Your task to perform on an android device: Search for vegetarian restaurants on Maps Image 0: 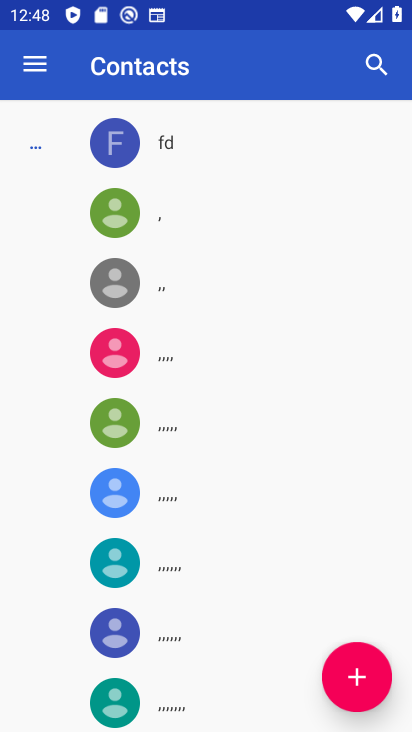
Step 0: press home button
Your task to perform on an android device: Search for vegetarian restaurants on Maps Image 1: 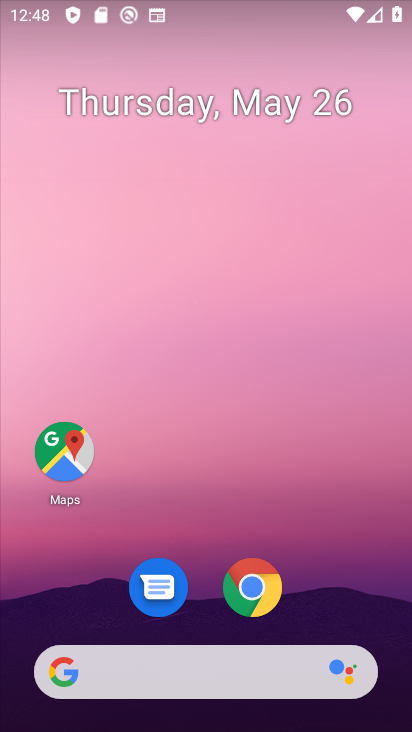
Step 1: drag from (387, 630) to (376, 264)
Your task to perform on an android device: Search for vegetarian restaurants on Maps Image 2: 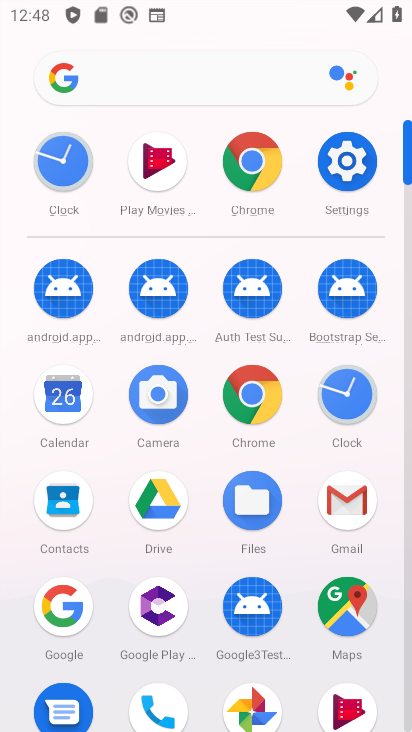
Step 2: drag from (401, 643) to (376, 388)
Your task to perform on an android device: Search for vegetarian restaurants on Maps Image 3: 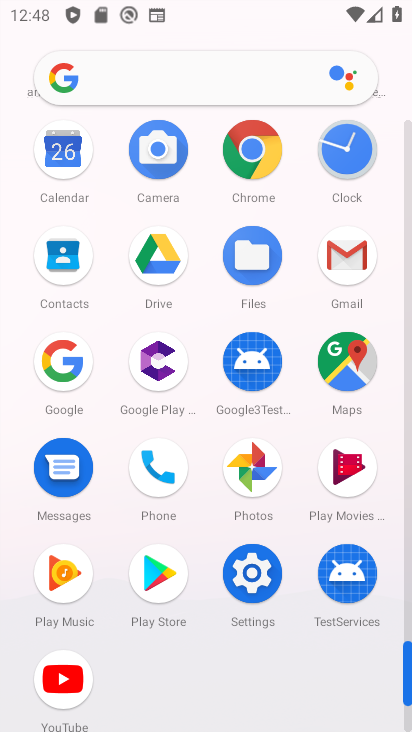
Step 3: click (354, 371)
Your task to perform on an android device: Search for vegetarian restaurants on Maps Image 4: 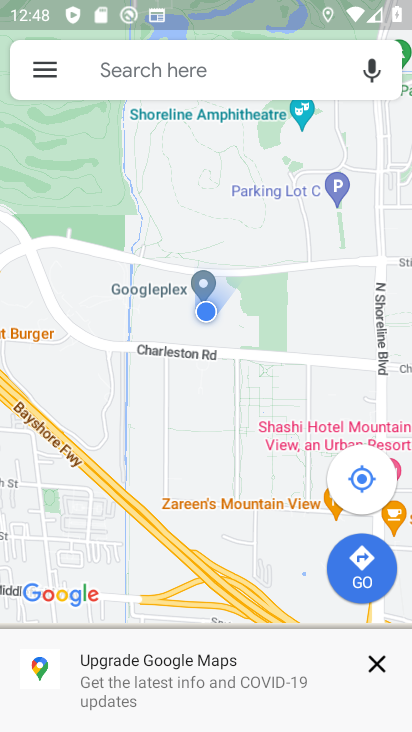
Step 4: click (233, 65)
Your task to perform on an android device: Search for vegetarian restaurants on Maps Image 5: 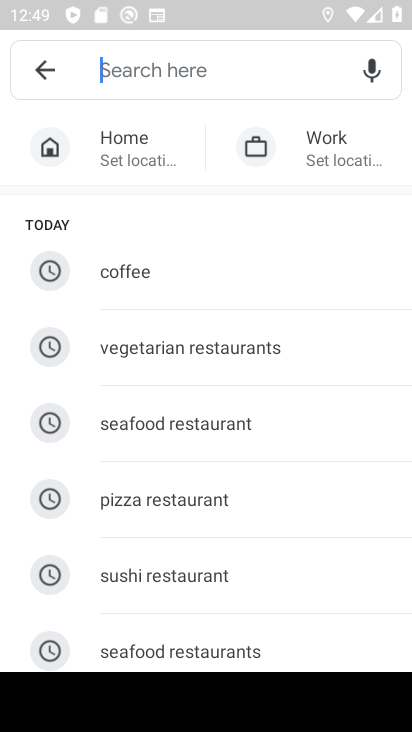
Step 5: type "vegetraub"
Your task to perform on an android device: Search for vegetarian restaurants on Maps Image 6: 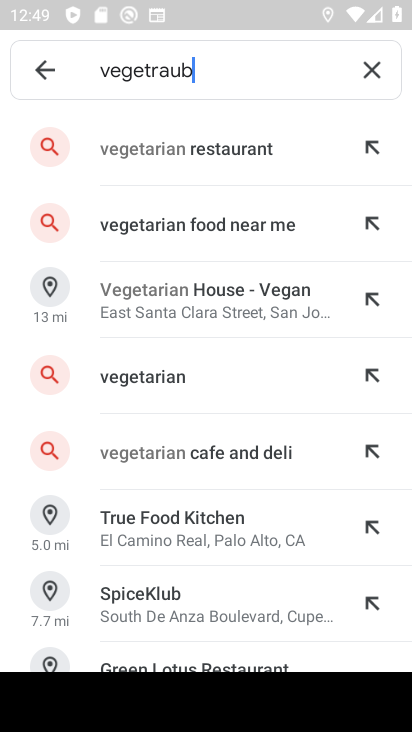
Step 6: click (212, 164)
Your task to perform on an android device: Search for vegetarian restaurants on Maps Image 7: 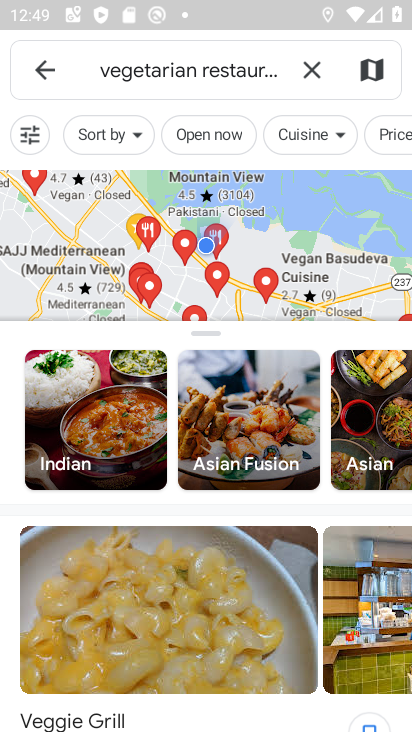
Step 7: task complete